Your task to perform on an android device: Open Yahoo.com Image 0: 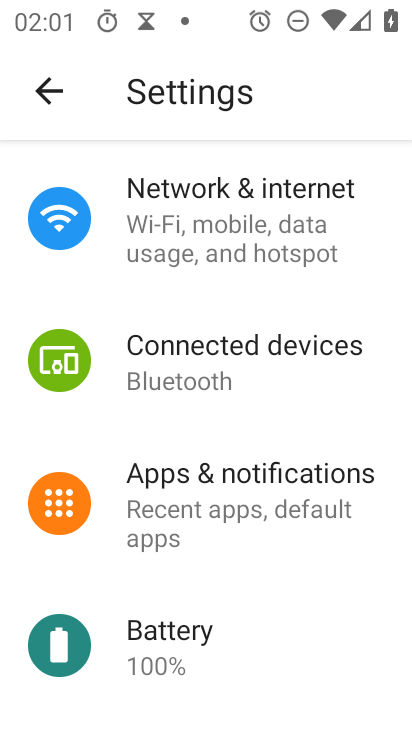
Step 0: press home button
Your task to perform on an android device: Open Yahoo.com Image 1: 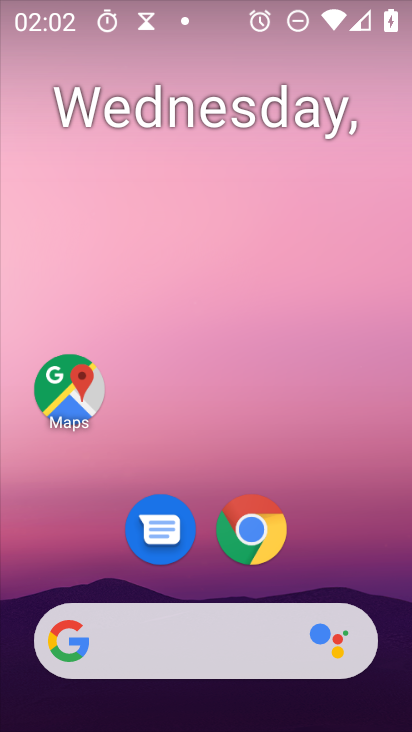
Step 1: drag from (231, 614) to (220, 29)
Your task to perform on an android device: Open Yahoo.com Image 2: 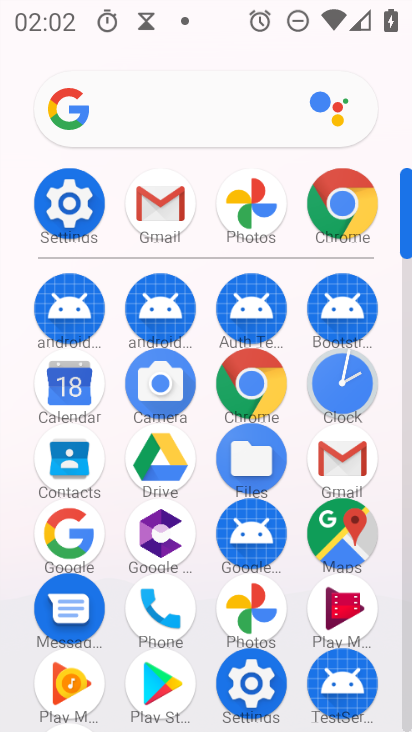
Step 2: click (262, 371)
Your task to perform on an android device: Open Yahoo.com Image 3: 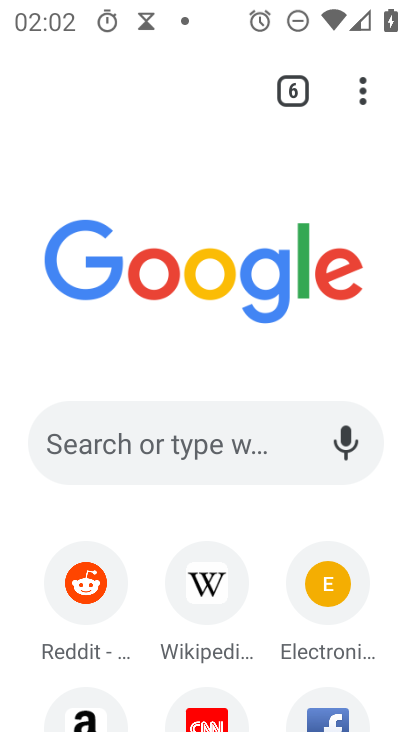
Step 3: drag from (292, 662) to (298, 183)
Your task to perform on an android device: Open Yahoo.com Image 4: 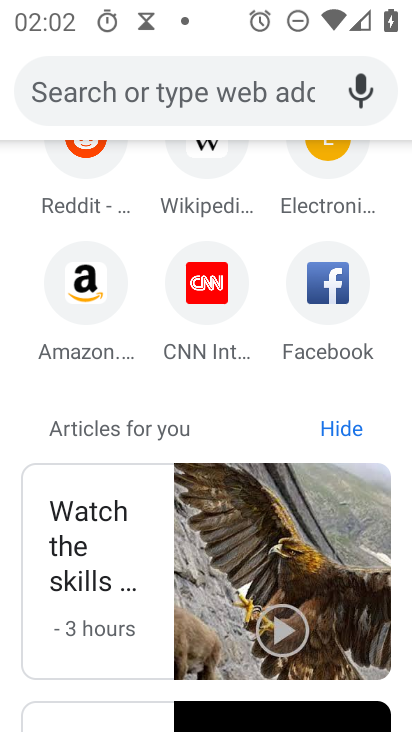
Step 4: click (236, 87)
Your task to perform on an android device: Open Yahoo.com Image 5: 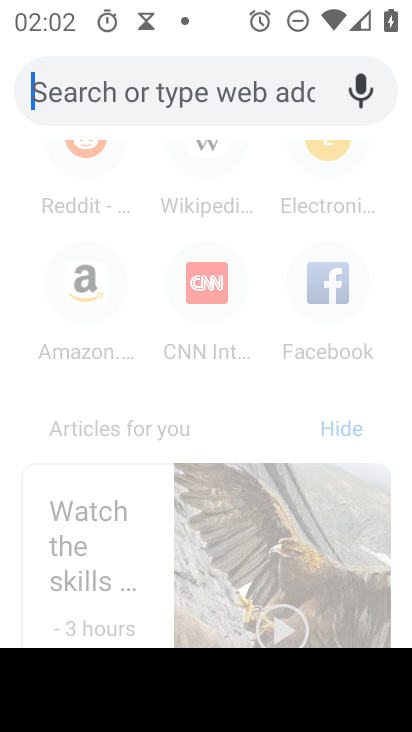
Step 5: type "yahoo.com"
Your task to perform on an android device: Open Yahoo.com Image 6: 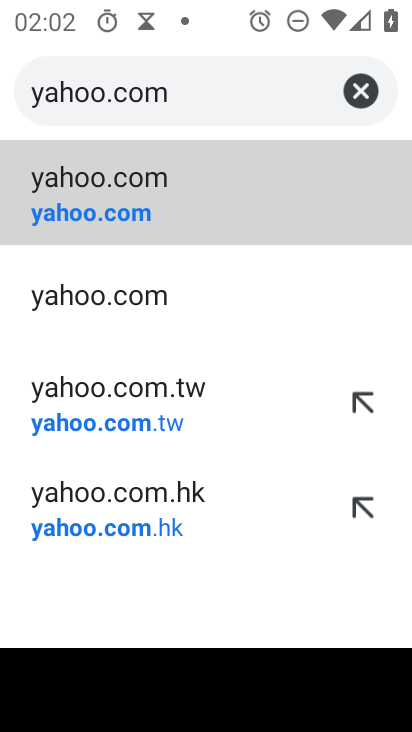
Step 6: click (197, 218)
Your task to perform on an android device: Open Yahoo.com Image 7: 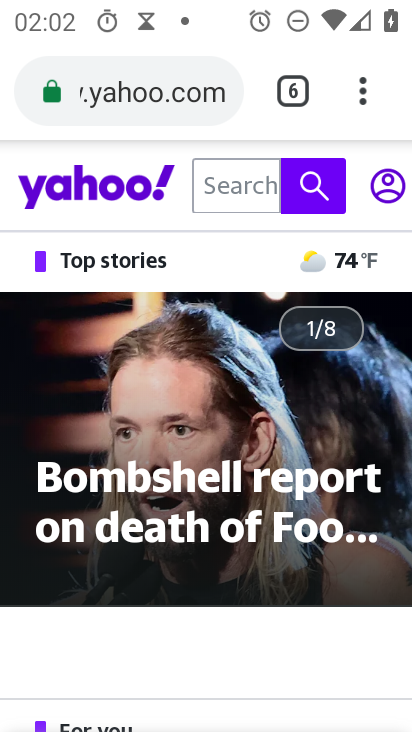
Step 7: task complete